Your task to perform on an android device: turn off picture-in-picture Image 0: 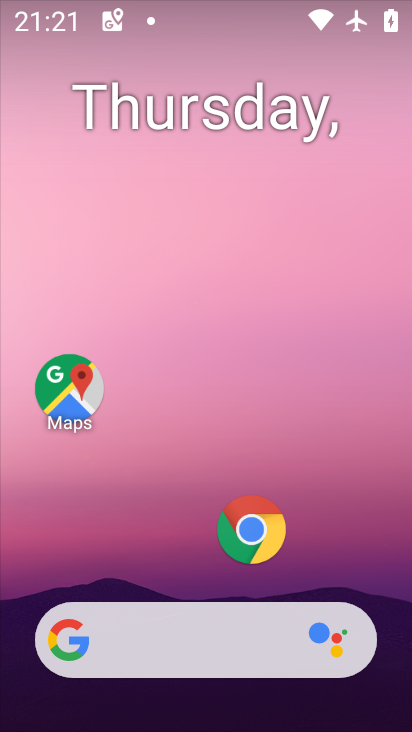
Step 0: press home button
Your task to perform on an android device: turn off picture-in-picture Image 1: 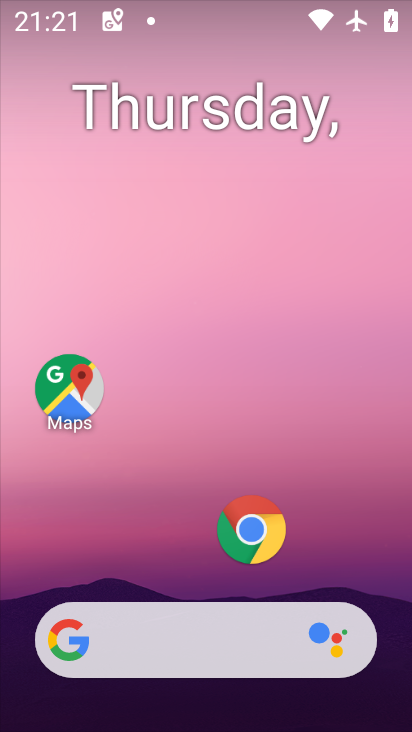
Step 1: click (248, 520)
Your task to perform on an android device: turn off picture-in-picture Image 2: 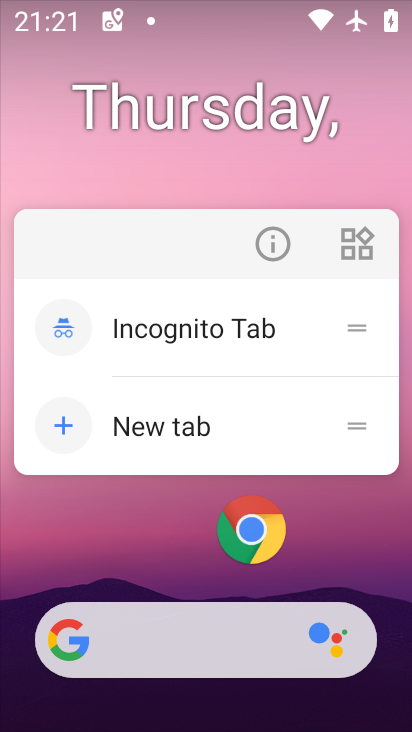
Step 2: click (274, 240)
Your task to perform on an android device: turn off picture-in-picture Image 3: 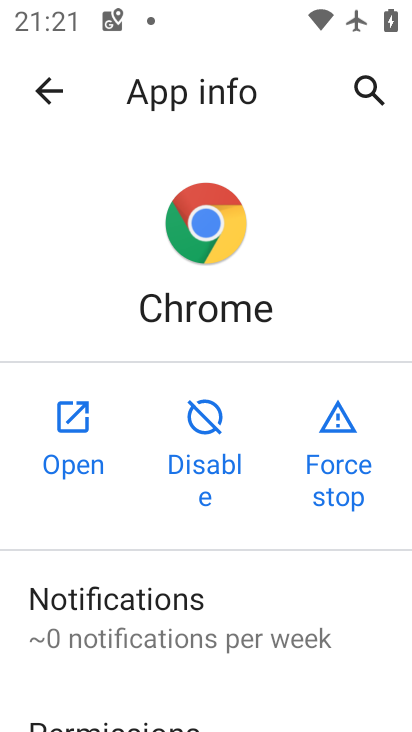
Step 3: drag from (210, 694) to (246, 161)
Your task to perform on an android device: turn off picture-in-picture Image 4: 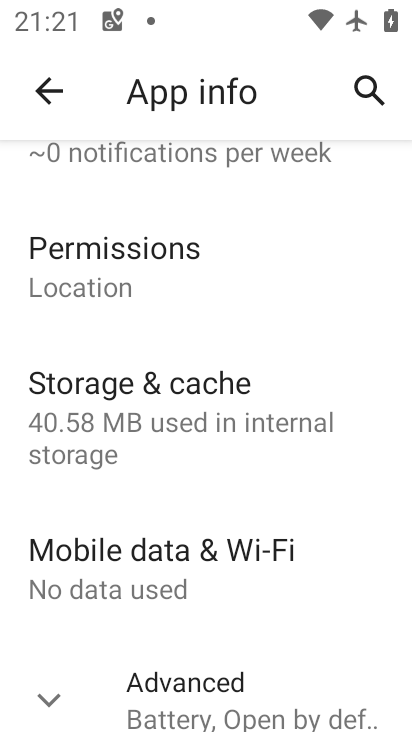
Step 4: click (46, 691)
Your task to perform on an android device: turn off picture-in-picture Image 5: 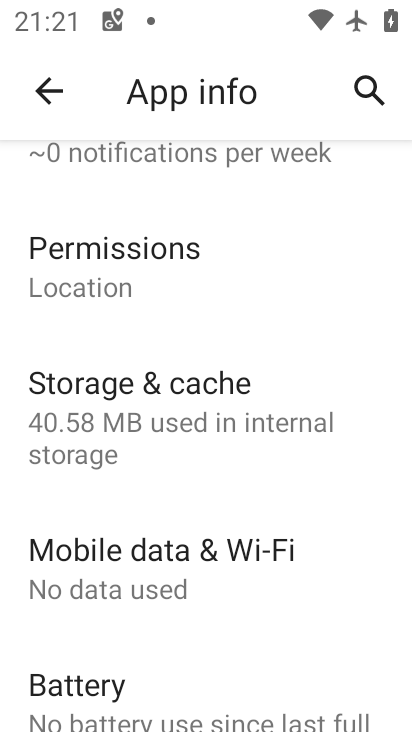
Step 5: drag from (163, 658) to (191, 178)
Your task to perform on an android device: turn off picture-in-picture Image 6: 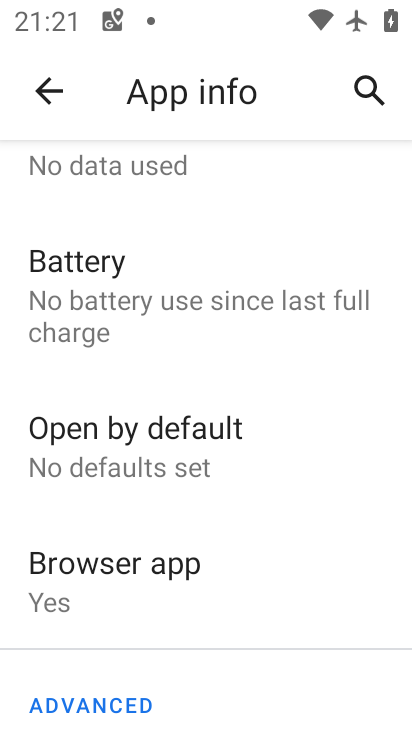
Step 6: drag from (166, 656) to (191, 144)
Your task to perform on an android device: turn off picture-in-picture Image 7: 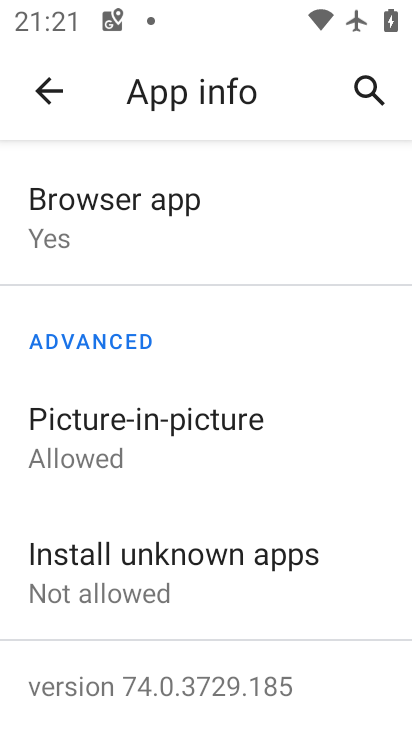
Step 7: click (139, 447)
Your task to perform on an android device: turn off picture-in-picture Image 8: 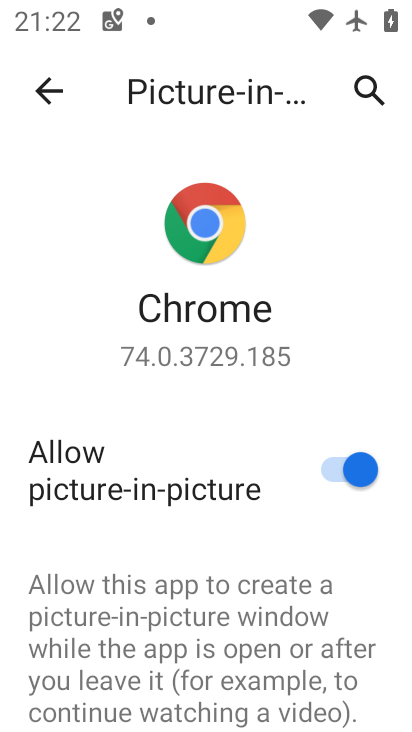
Step 8: click (341, 464)
Your task to perform on an android device: turn off picture-in-picture Image 9: 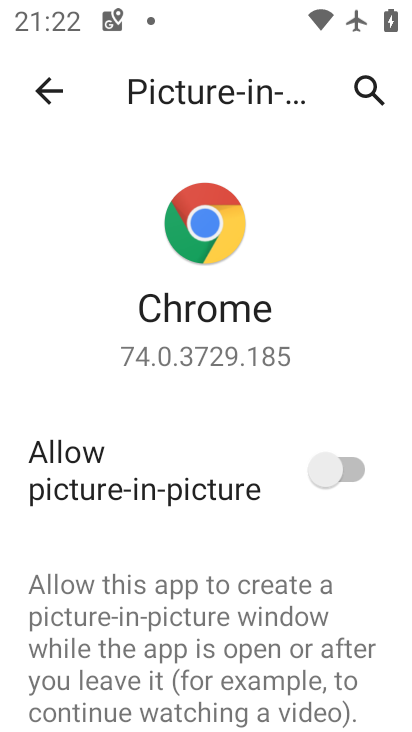
Step 9: task complete